Your task to perform on an android device: Go to sound settings Image 0: 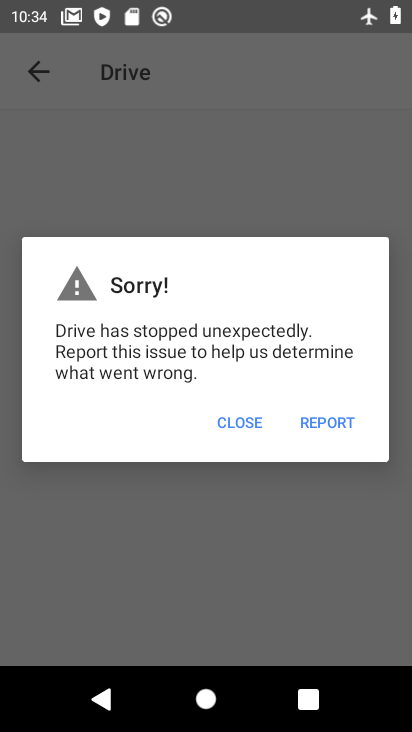
Step 0: press home button
Your task to perform on an android device: Go to sound settings Image 1: 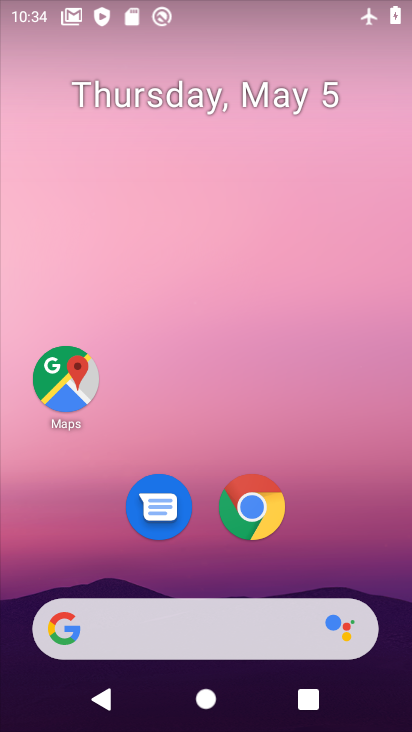
Step 1: drag from (351, 551) to (347, 4)
Your task to perform on an android device: Go to sound settings Image 2: 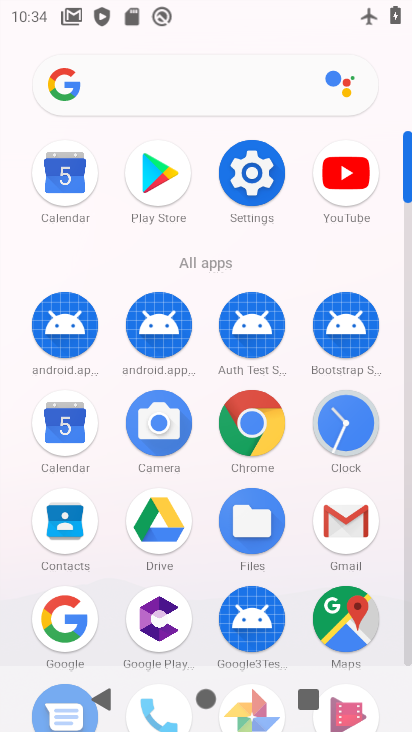
Step 2: click (254, 179)
Your task to perform on an android device: Go to sound settings Image 3: 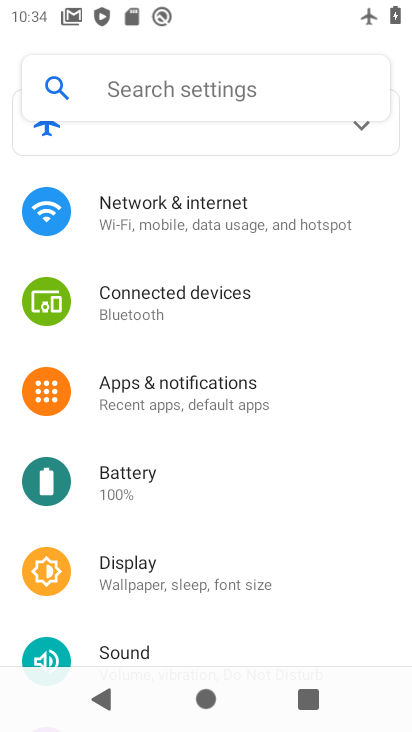
Step 3: drag from (311, 558) to (317, 237)
Your task to perform on an android device: Go to sound settings Image 4: 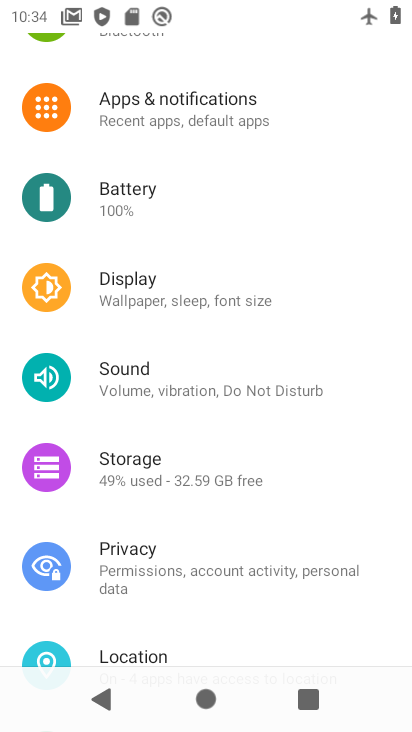
Step 4: click (123, 381)
Your task to perform on an android device: Go to sound settings Image 5: 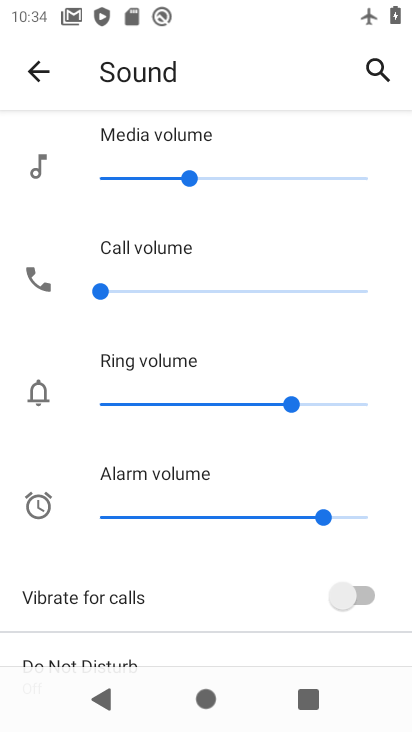
Step 5: task complete